Your task to perform on an android device: Look up the best rated book on Goodreads Image 0: 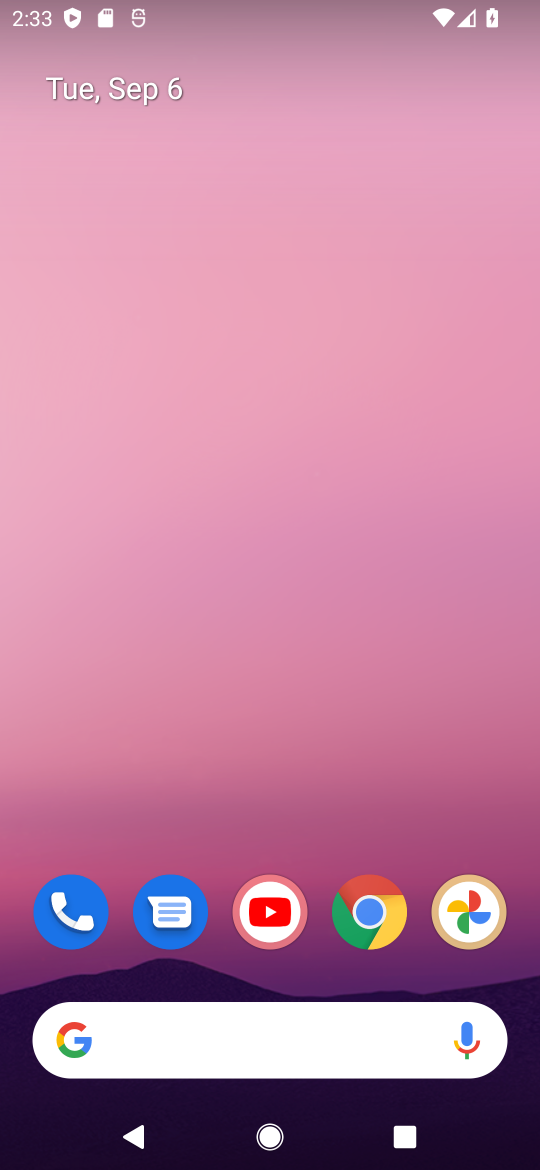
Step 0: drag from (307, 860) to (232, 73)
Your task to perform on an android device: Look up the best rated book on Goodreads Image 1: 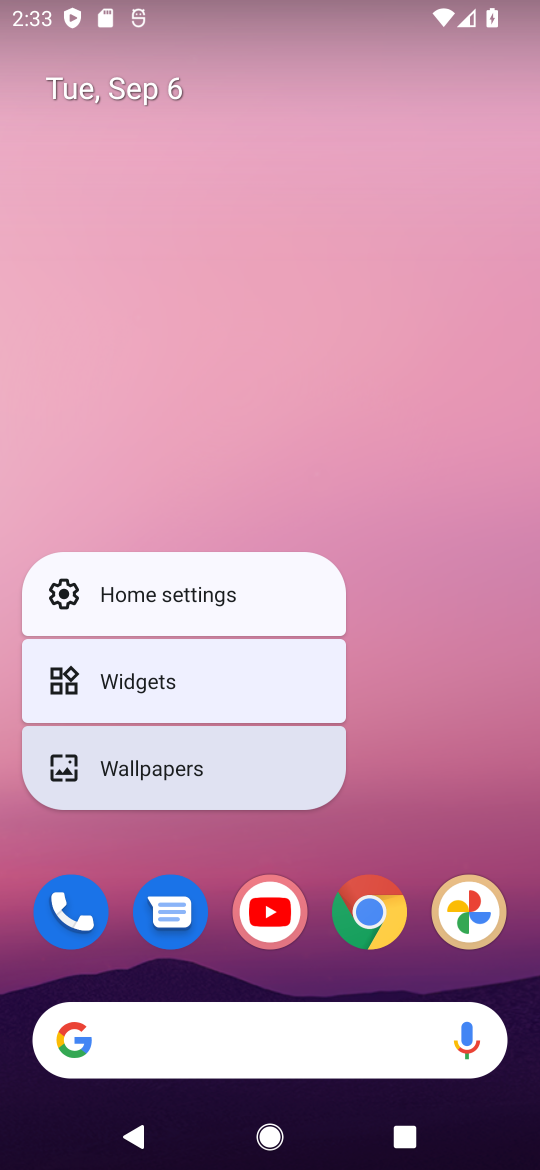
Step 1: click (220, 396)
Your task to perform on an android device: Look up the best rated book on Goodreads Image 2: 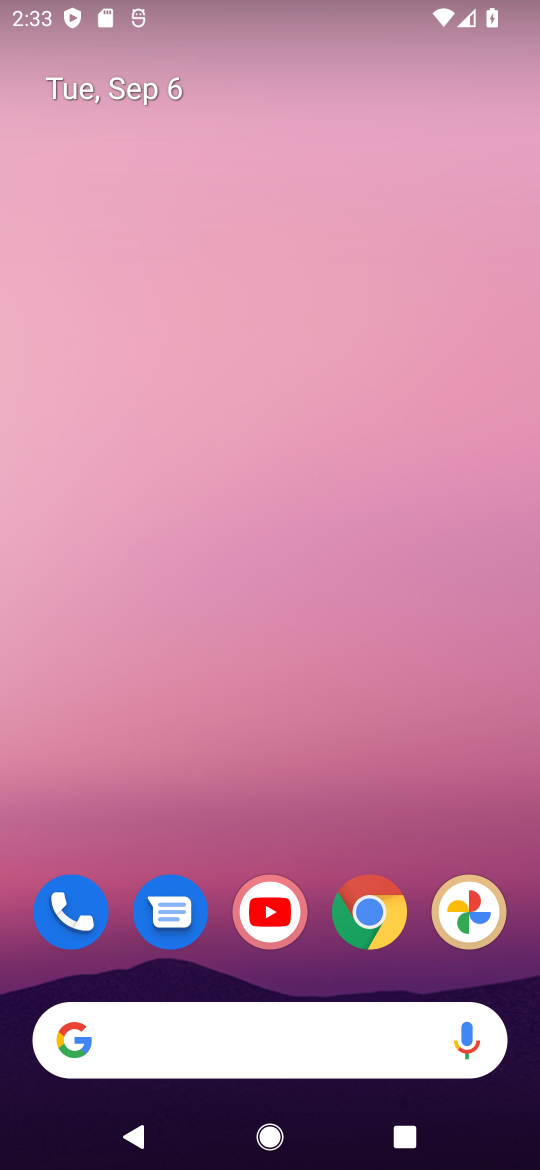
Step 2: drag from (317, 883) to (254, 80)
Your task to perform on an android device: Look up the best rated book on Goodreads Image 3: 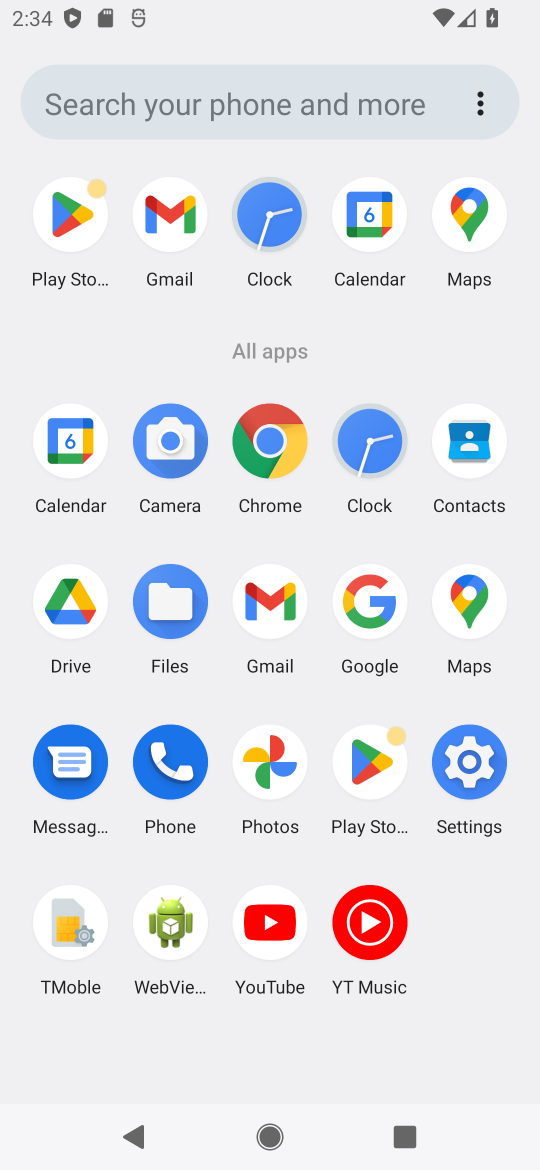
Step 3: click (276, 437)
Your task to perform on an android device: Look up the best rated book on Goodreads Image 4: 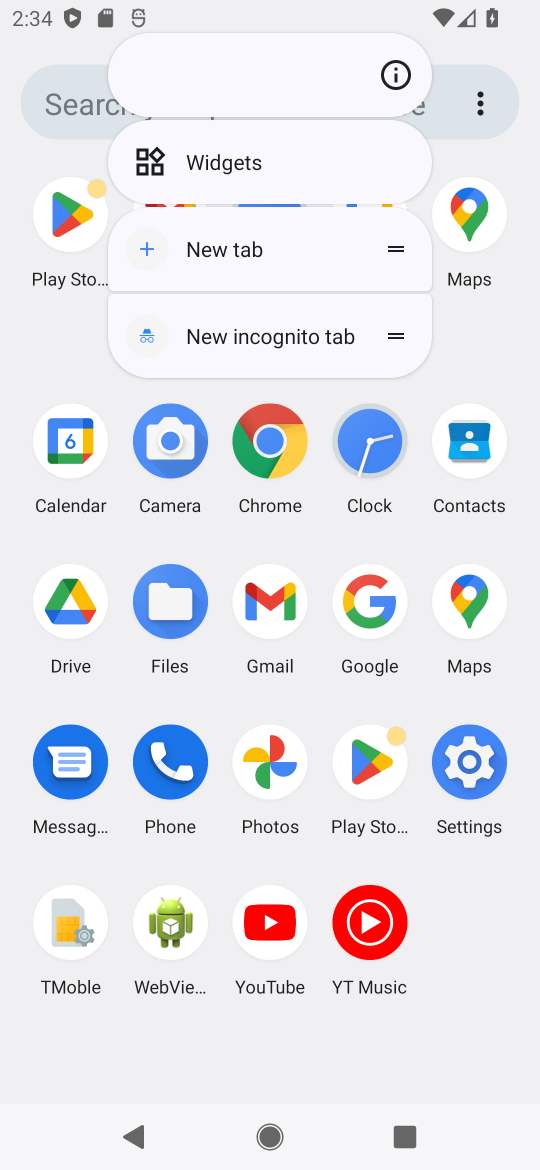
Step 4: click (274, 444)
Your task to perform on an android device: Look up the best rated book on Goodreads Image 5: 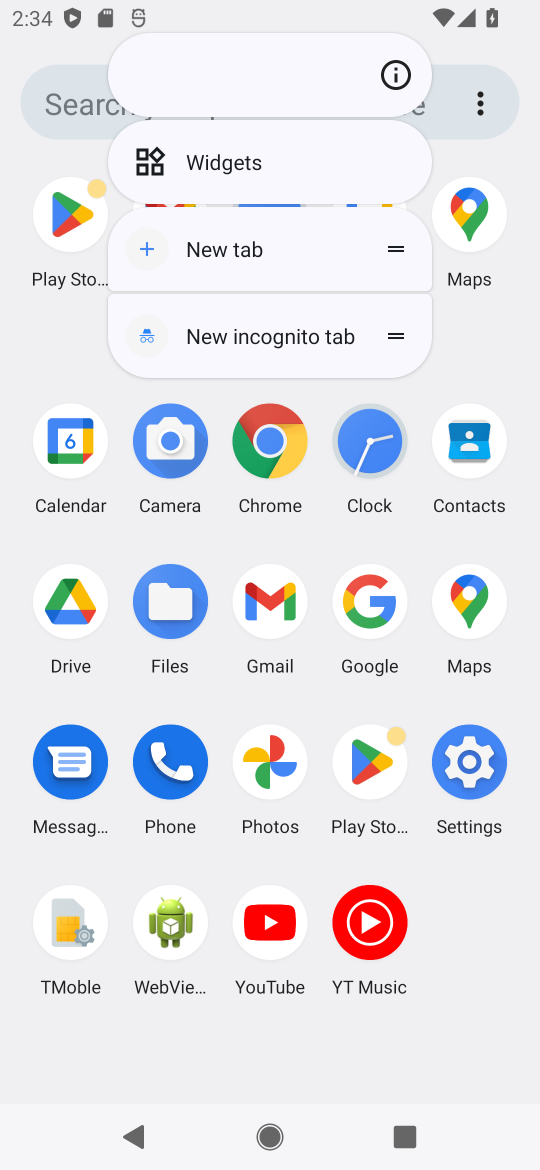
Step 5: click (288, 442)
Your task to perform on an android device: Look up the best rated book on Goodreads Image 6: 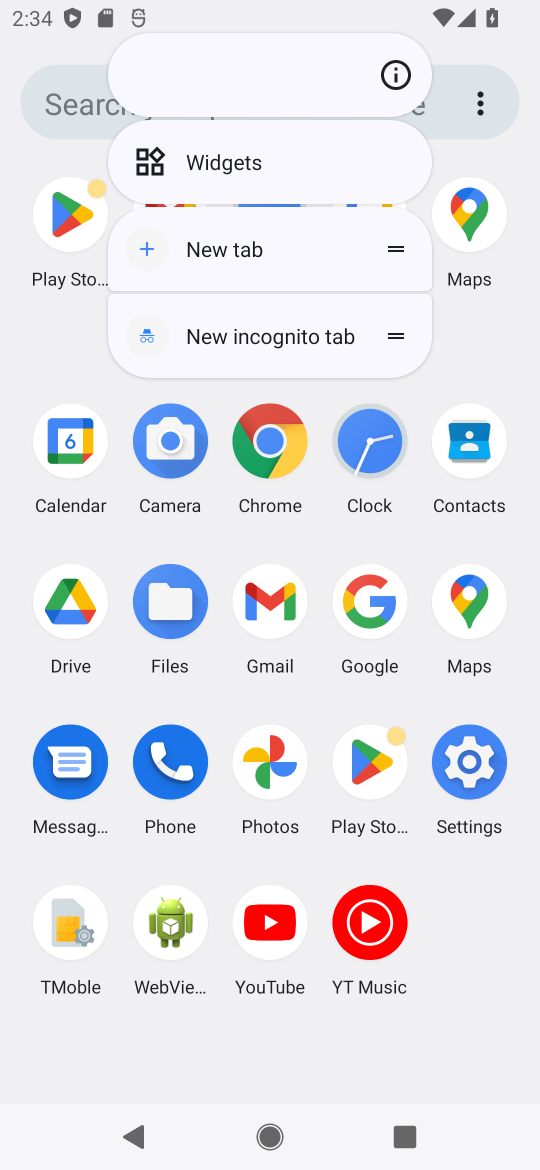
Step 6: click (288, 442)
Your task to perform on an android device: Look up the best rated book on Goodreads Image 7: 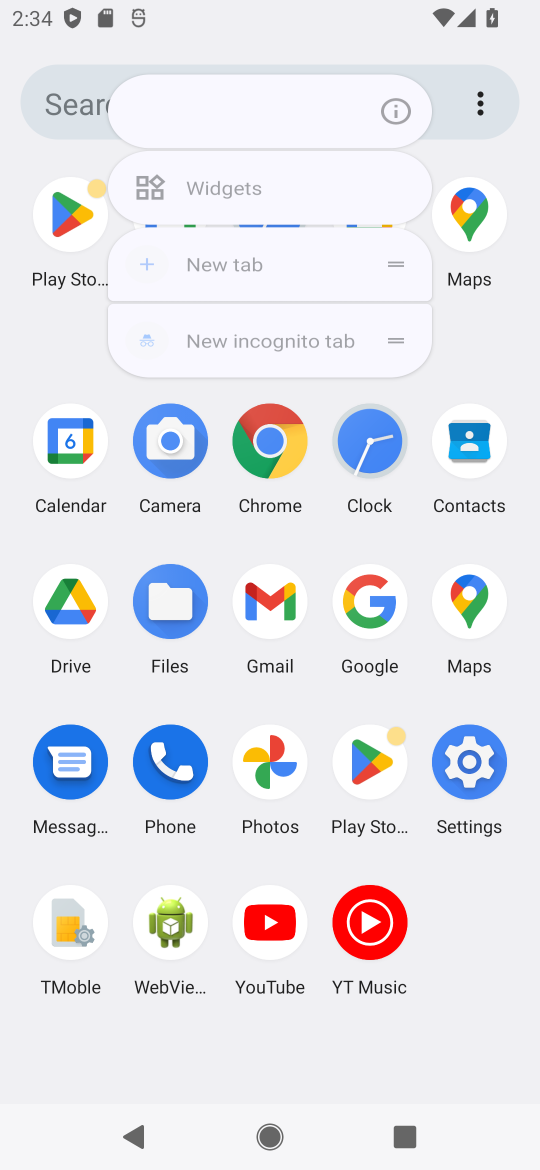
Step 7: click (260, 442)
Your task to perform on an android device: Look up the best rated book on Goodreads Image 8: 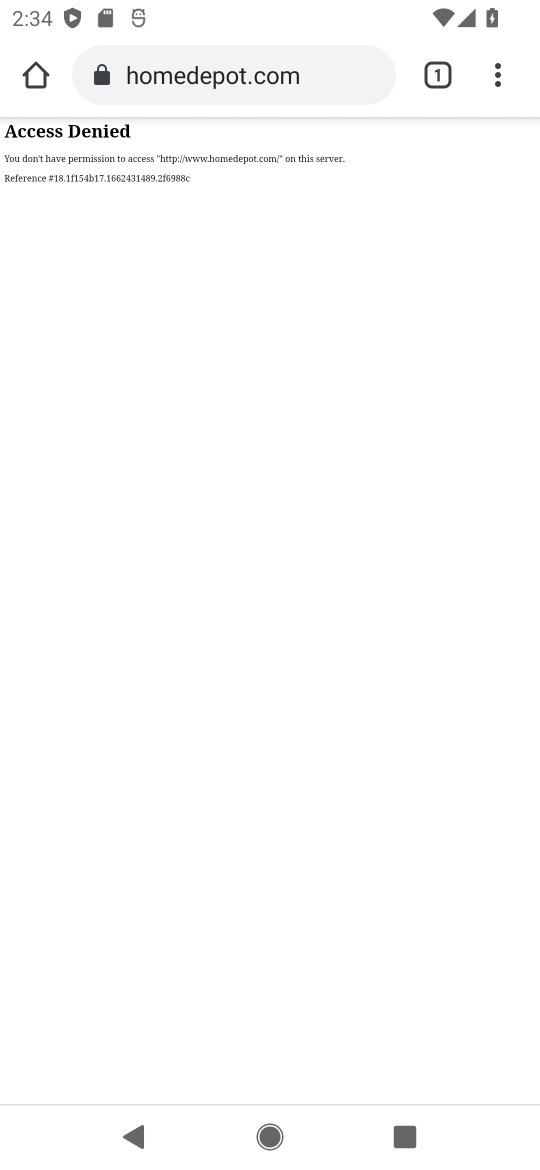
Step 8: task complete